Your task to perform on an android device: clear history in the chrome app Image 0: 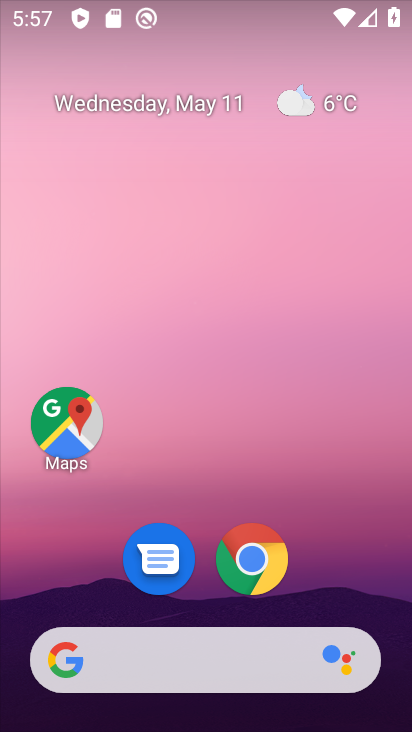
Step 0: click (268, 568)
Your task to perform on an android device: clear history in the chrome app Image 1: 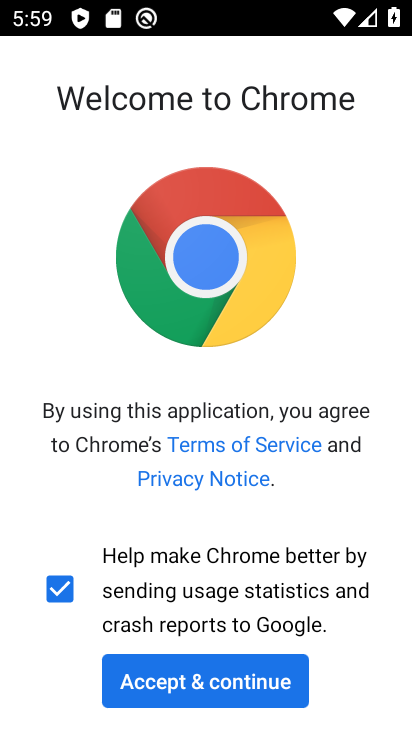
Step 1: click (232, 695)
Your task to perform on an android device: clear history in the chrome app Image 2: 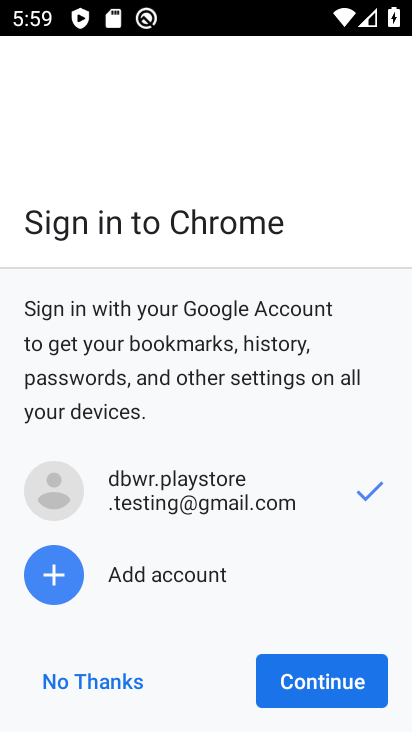
Step 2: click (336, 700)
Your task to perform on an android device: clear history in the chrome app Image 3: 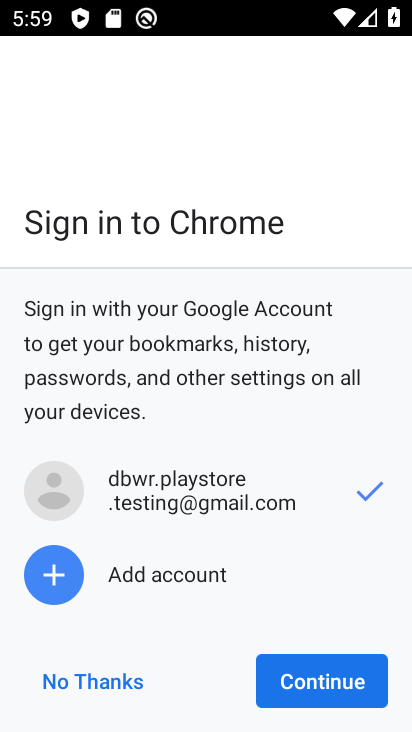
Step 3: click (336, 700)
Your task to perform on an android device: clear history in the chrome app Image 4: 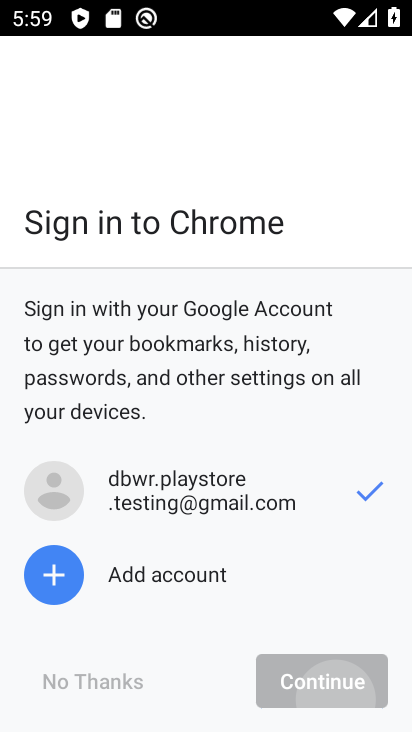
Step 4: click (336, 700)
Your task to perform on an android device: clear history in the chrome app Image 5: 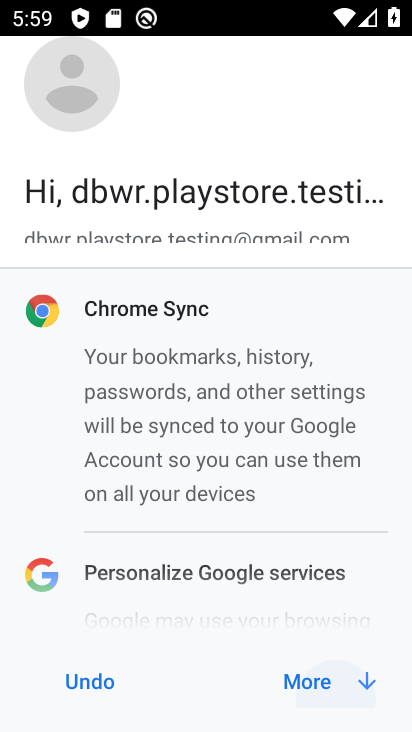
Step 5: click (336, 700)
Your task to perform on an android device: clear history in the chrome app Image 6: 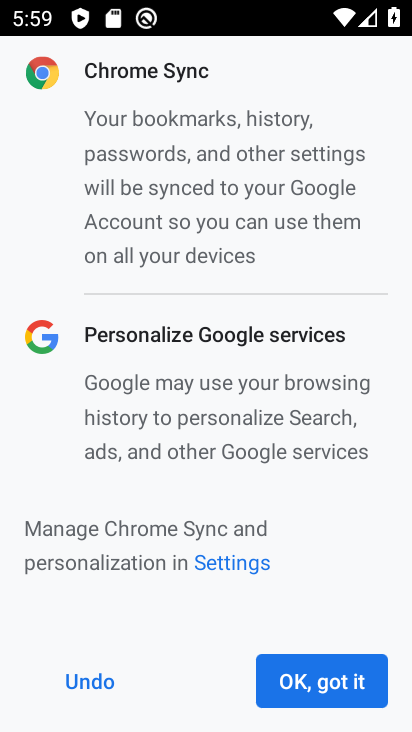
Step 6: click (336, 700)
Your task to perform on an android device: clear history in the chrome app Image 7: 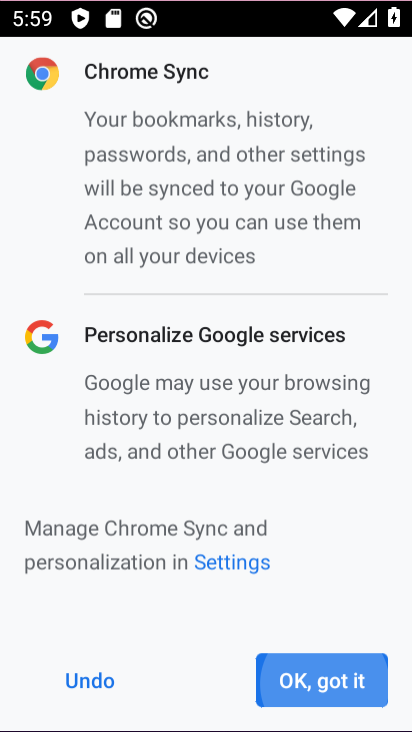
Step 7: click (336, 700)
Your task to perform on an android device: clear history in the chrome app Image 8: 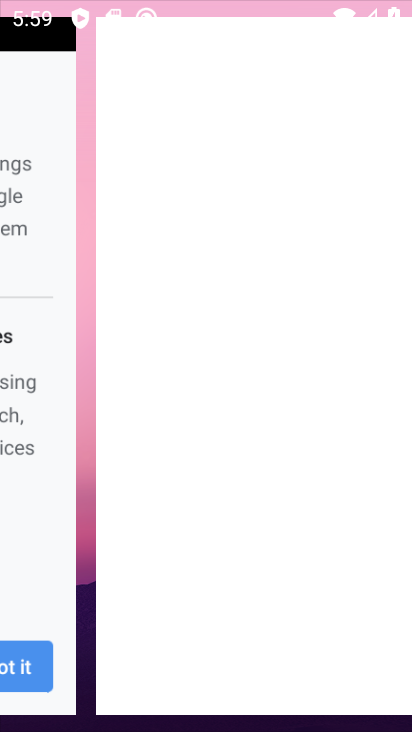
Step 8: click (336, 700)
Your task to perform on an android device: clear history in the chrome app Image 9: 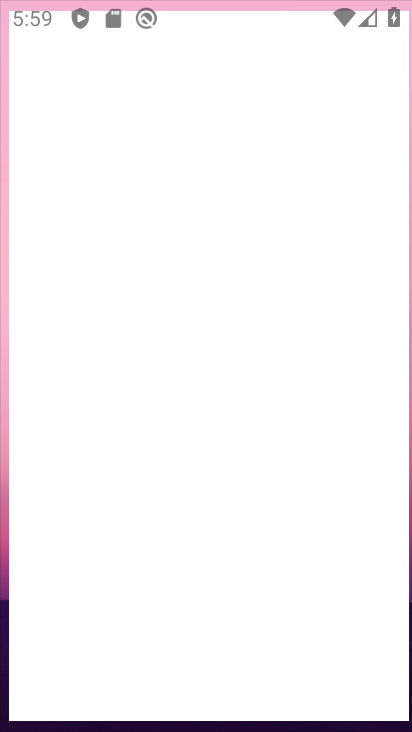
Step 9: click (336, 700)
Your task to perform on an android device: clear history in the chrome app Image 10: 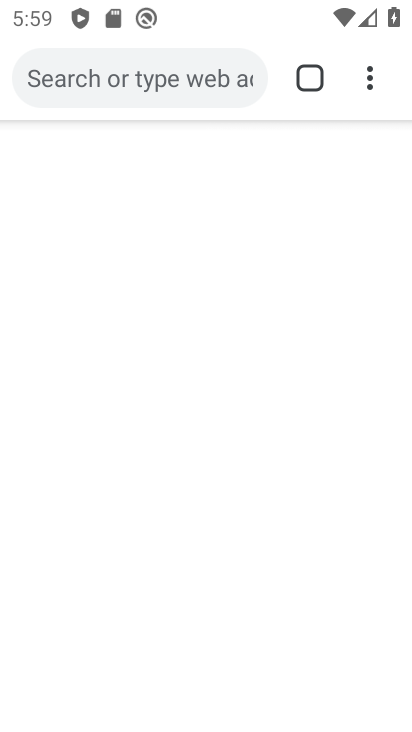
Step 10: click (336, 700)
Your task to perform on an android device: clear history in the chrome app Image 11: 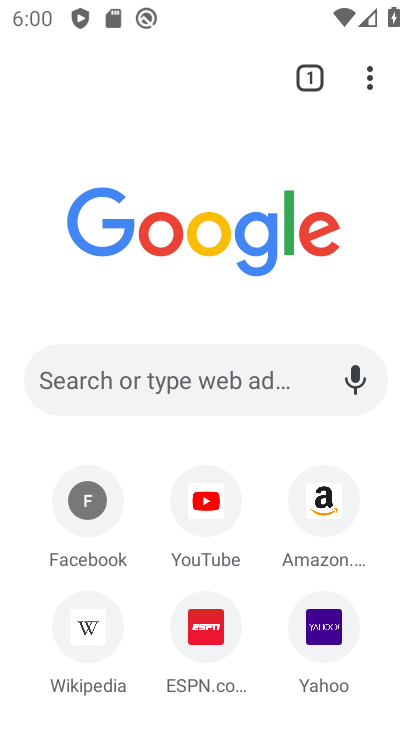
Step 11: task complete